Your task to perform on an android device: Open sound settings Image 0: 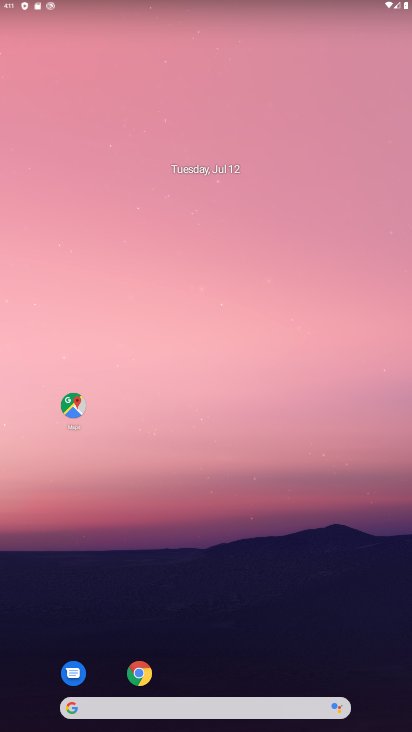
Step 0: click (253, 147)
Your task to perform on an android device: Open sound settings Image 1: 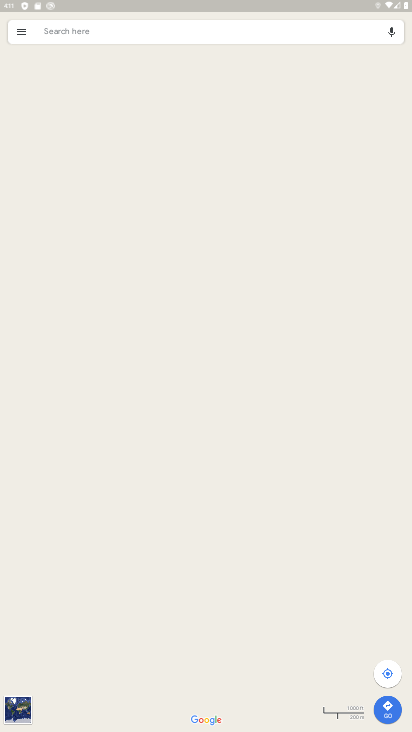
Step 1: press home button
Your task to perform on an android device: Open sound settings Image 2: 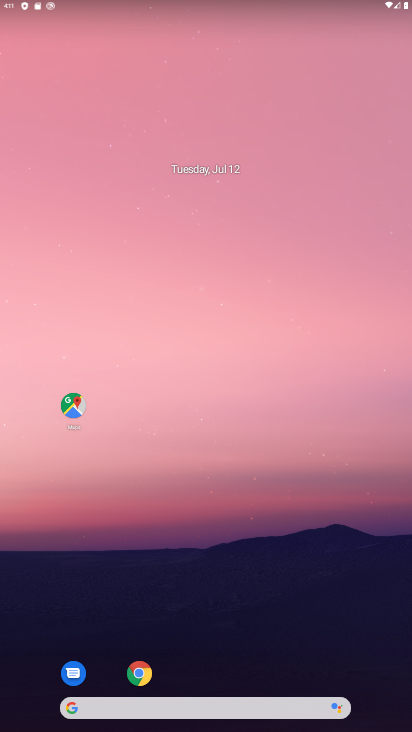
Step 2: drag from (318, 639) to (291, 109)
Your task to perform on an android device: Open sound settings Image 3: 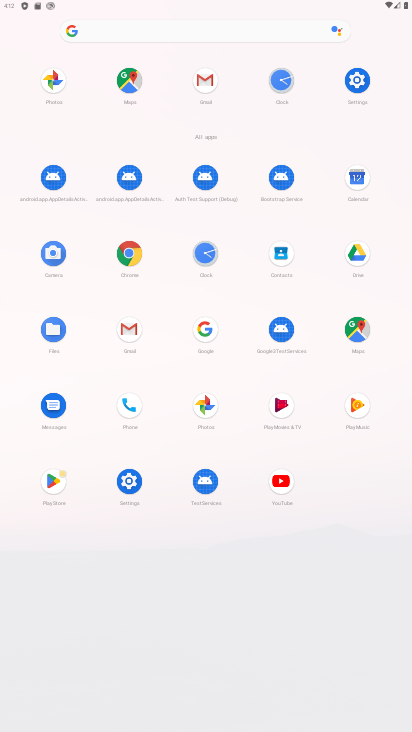
Step 3: click (353, 83)
Your task to perform on an android device: Open sound settings Image 4: 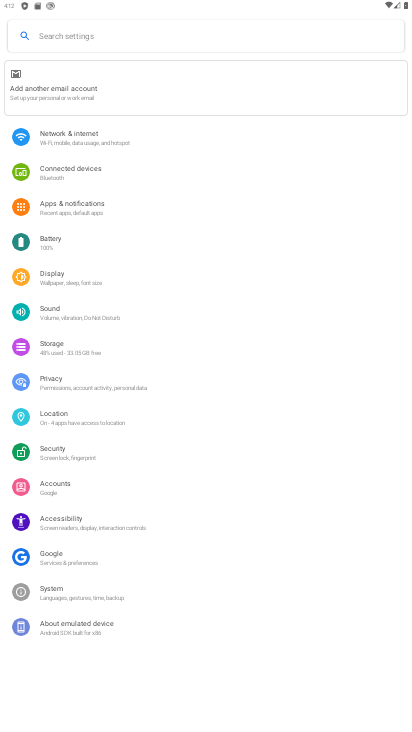
Step 4: click (74, 309)
Your task to perform on an android device: Open sound settings Image 5: 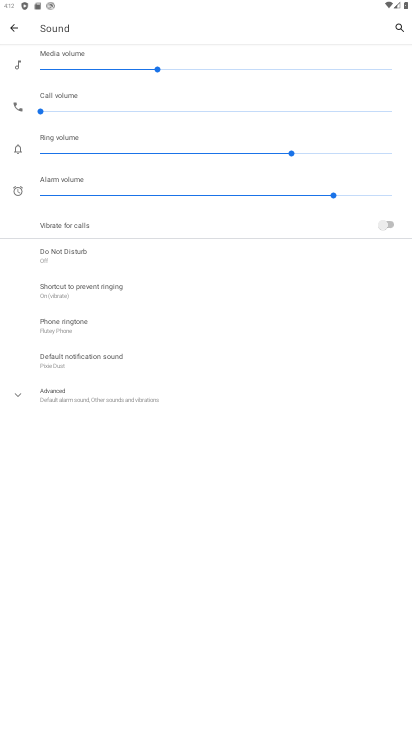
Step 5: task complete